Your task to perform on an android device: Open Wikipedia Image 0: 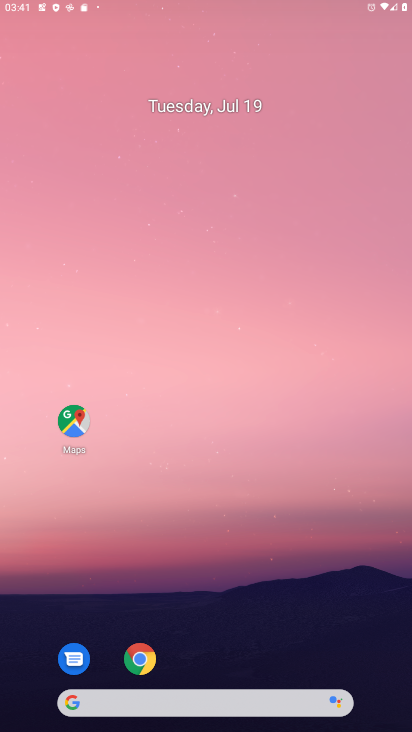
Step 0: press home button
Your task to perform on an android device: Open Wikipedia Image 1: 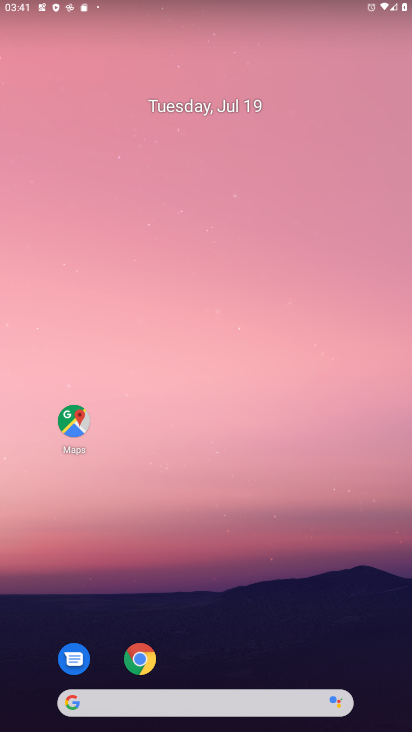
Step 1: click (132, 666)
Your task to perform on an android device: Open Wikipedia Image 2: 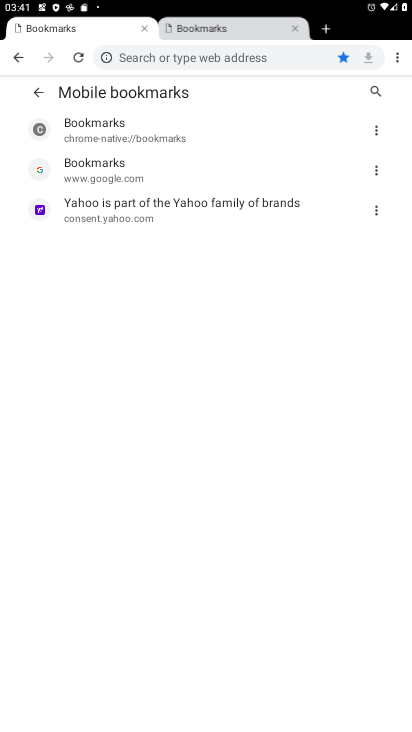
Step 2: click (244, 57)
Your task to perform on an android device: Open Wikipedia Image 3: 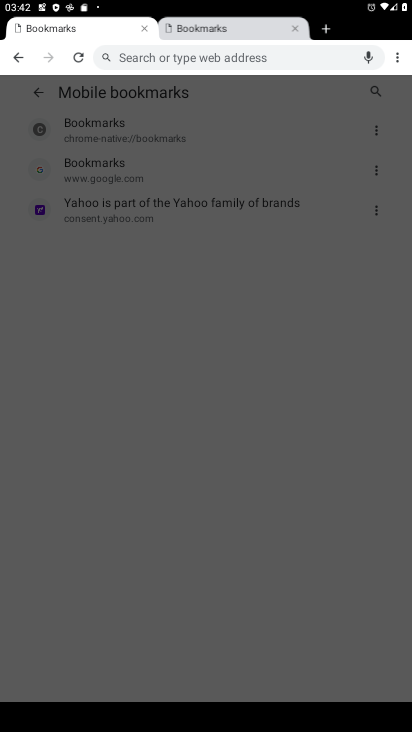
Step 3: type "Wikipedia"
Your task to perform on an android device: Open Wikipedia Image 4: 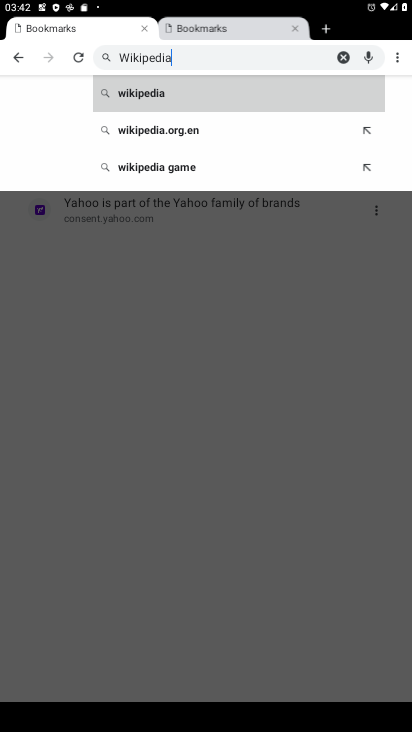
Step 4: type ""
Your task to perform on an android device: Open Wikipedia Image 5: 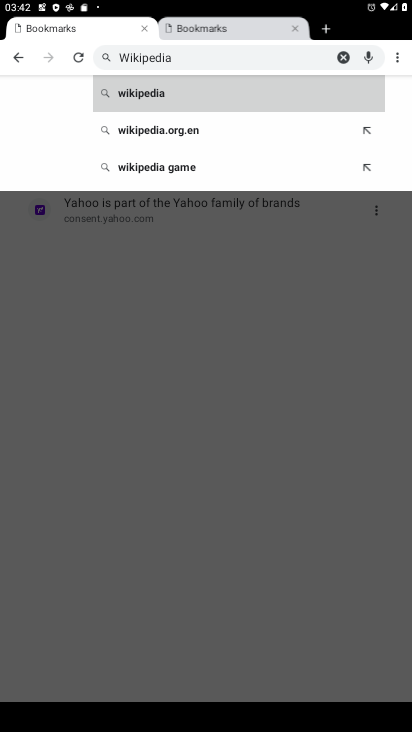
Step 5: click (173, 84)
Your task to perform on an android device: Open Wikipedia Image 6: 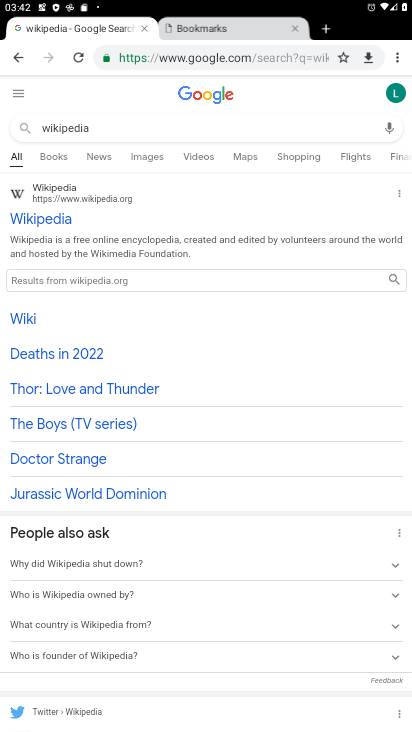
Step 6: click (64, 219)
Your task to perform on an android device: Open Wikipedia Image 7: 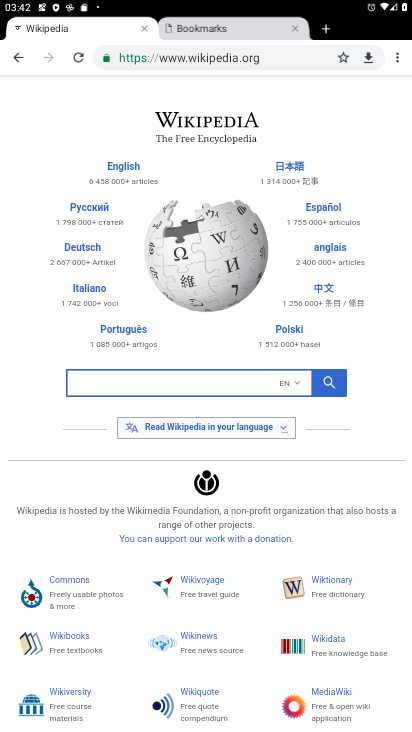
Step 7: task complete